Your task to perform on an android device: Open the Play Movies app and select the watchlist tab. Image 0: 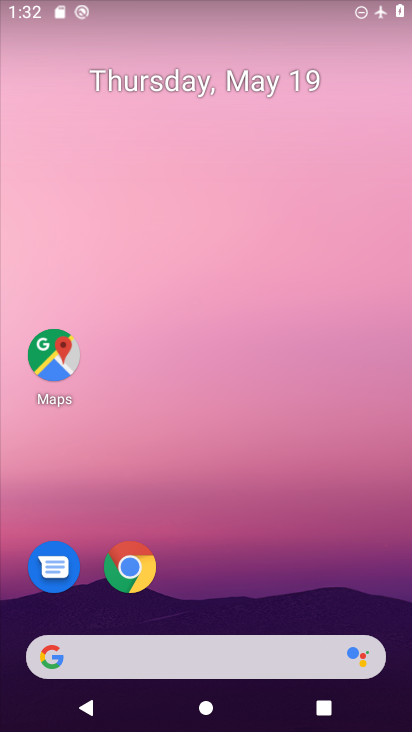
Step 0: drag from (269, 536) to (322, 53)
Your task to perform on an android device: Open the Play Movies app and select the watchlist tab. Image 1: 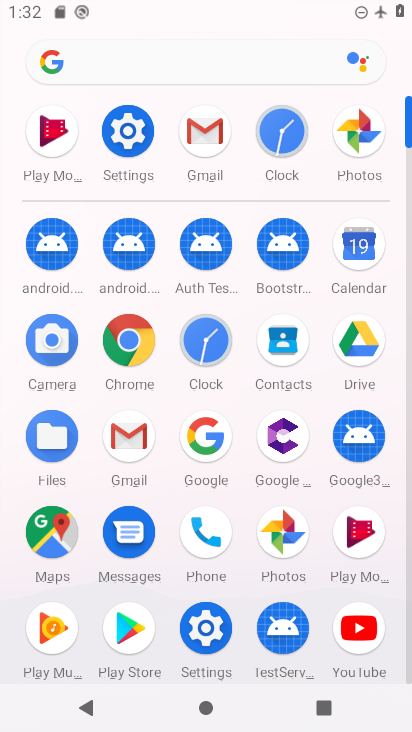
Step 1: click (360, 523)
Your task to perform on an android device: Open the Play Movies app and select the watchlist tab. Image 2: 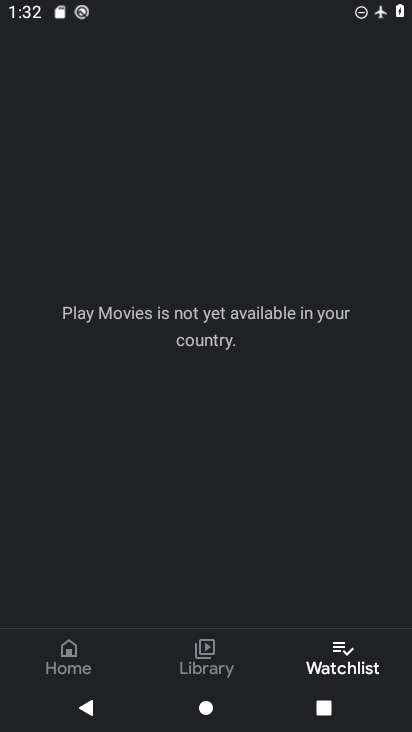
Step 2: task complete